Your task to perform on an android device: Open the Play Movies app and select the watchlist tab. Image 0: 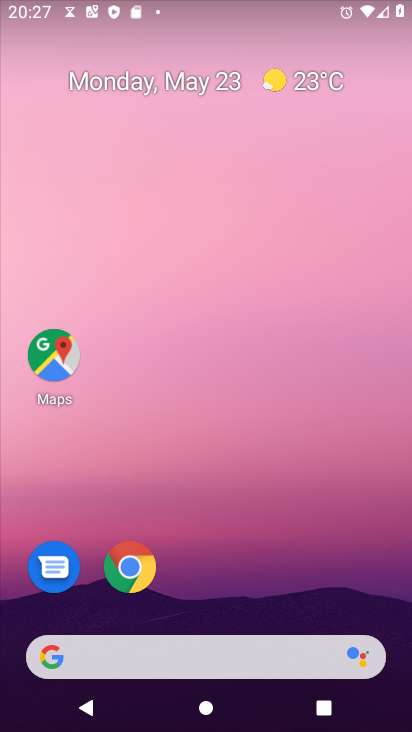
Step 0: drag from (289, 587) to (325, 220)
Your task to perform on an android device: Open the Play Movies app and select the watchlist tab. Image 1: 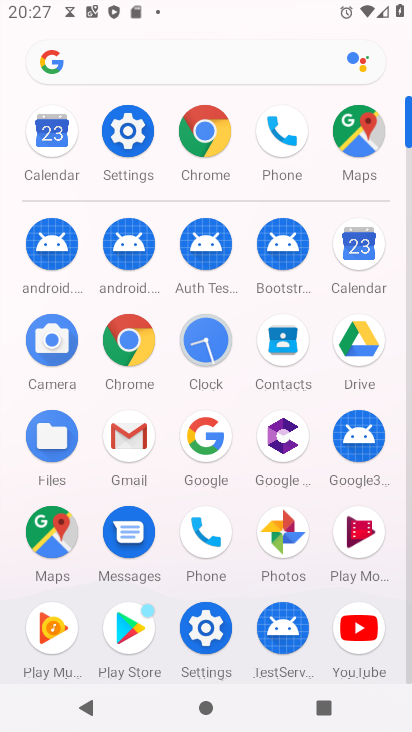
Step 1: click (369, 533)
Your task to perform on an android device: Open the Play Movies app and select the watchlist tab. Image 2: 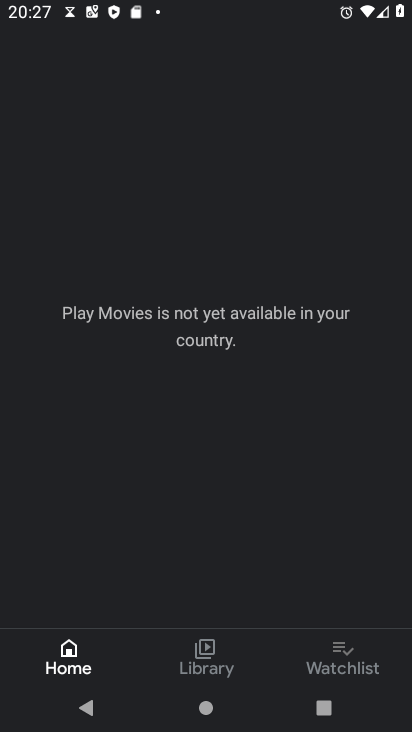
Step 2: click (335, 647)
Your task to perform on an android device: Open the Play Movies app and select the watchlist tab. Image 3: 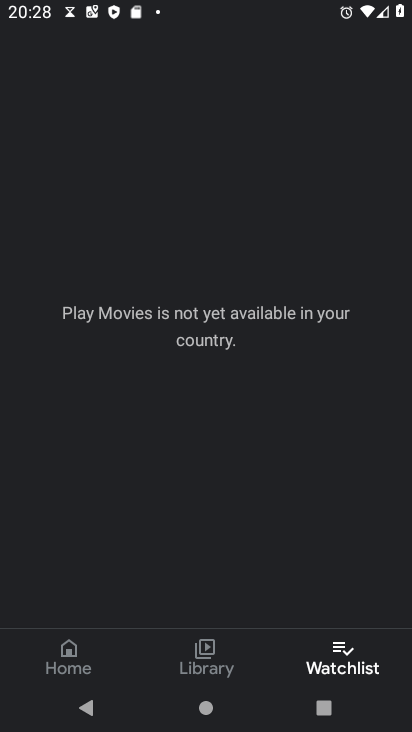
Step 3: task complete